Your task to perform on an android device: toggle airplane mode Image 0: 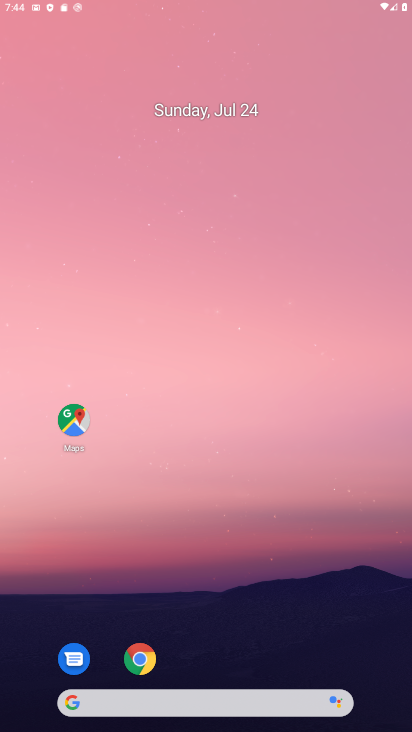
Step 0: drag from (222, 587) to (200, 168)
Your task to perform on an android device: toggle airplane mode Image 1: 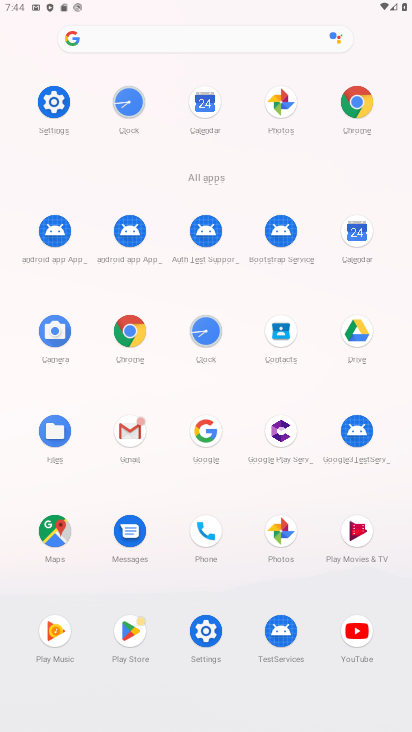
Step 1: click (57, 107)
Your task to perform on an android device: toggle airplane mode Image 2: 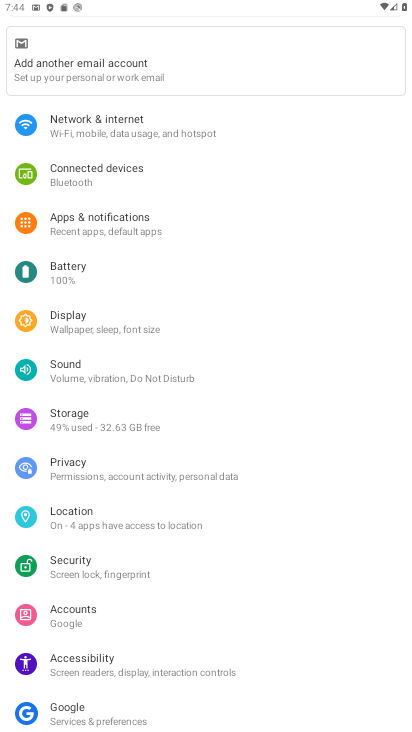
Step 2: click (102, 131)
Your task to perform on an android device: toggle airplane mode Image 3: 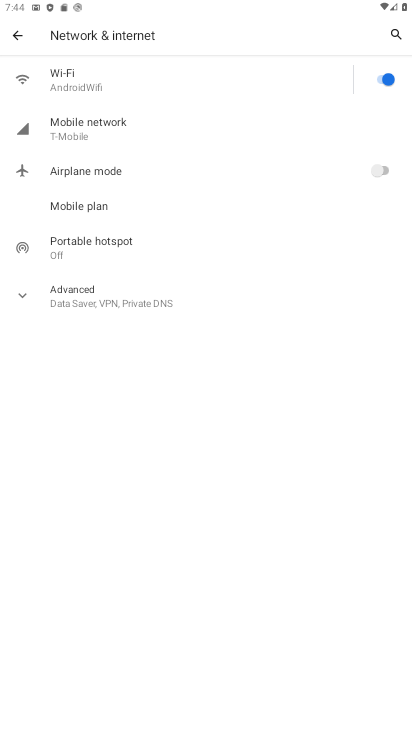
Step 3: click (373, 173)
Your task to perform on an android device: toggle airplane mode Image 4: 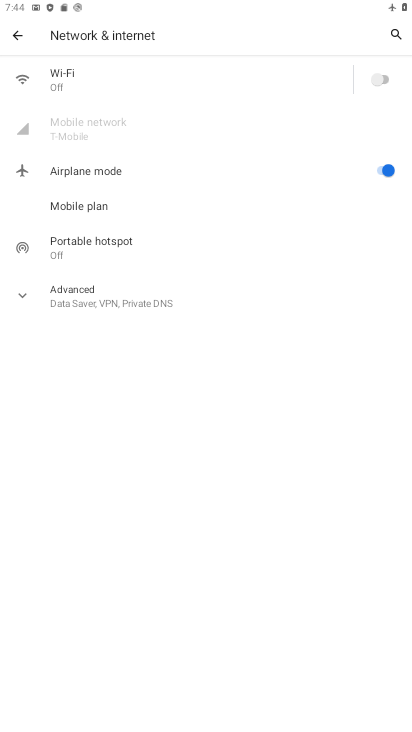
Step 4: task complete